Your task to perform on an android device: Search for amazon basics triple a on target.com, select the first entry, and add it to the cart. Image 0: 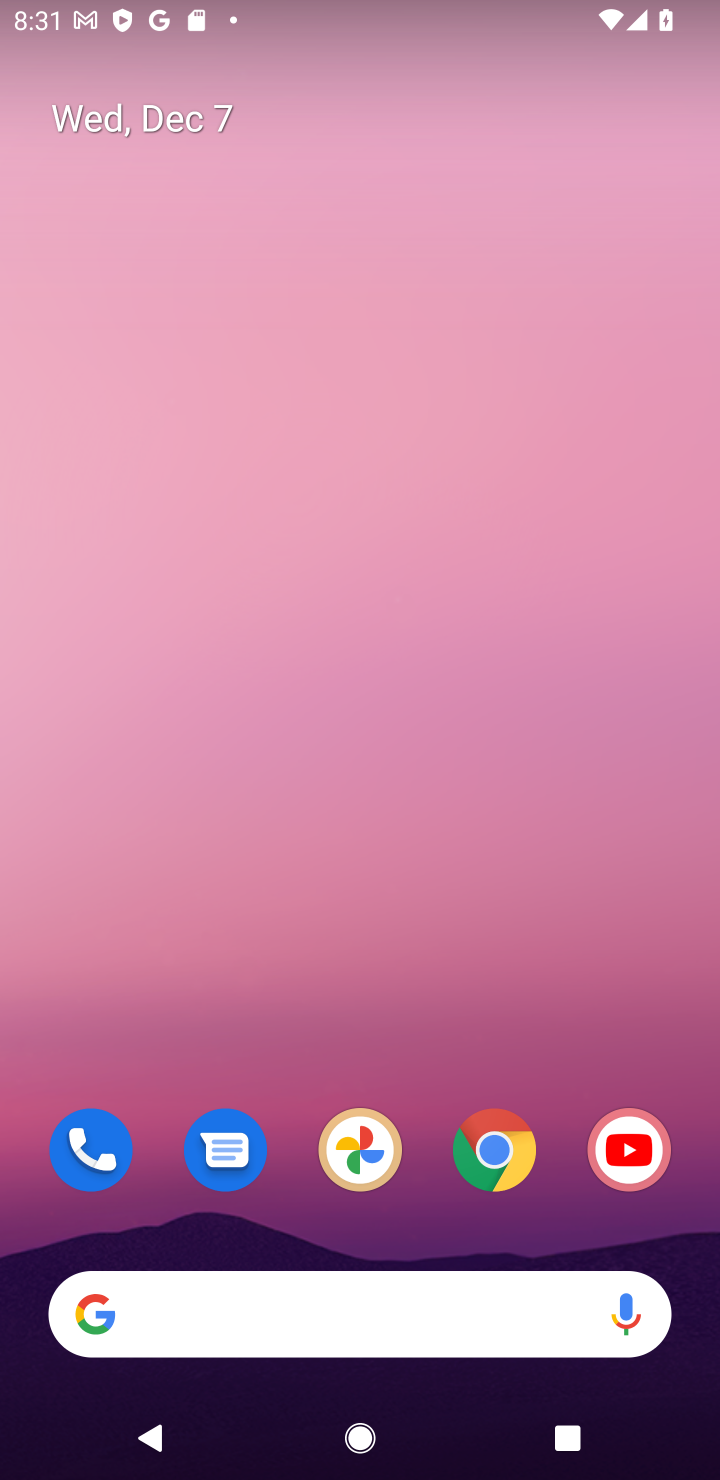
Step 0: click (489, 1151)
Your task to perform on an android device: Search for amazon basics triple a on target.com, select the first entry, and add it to the cart. Image 1: 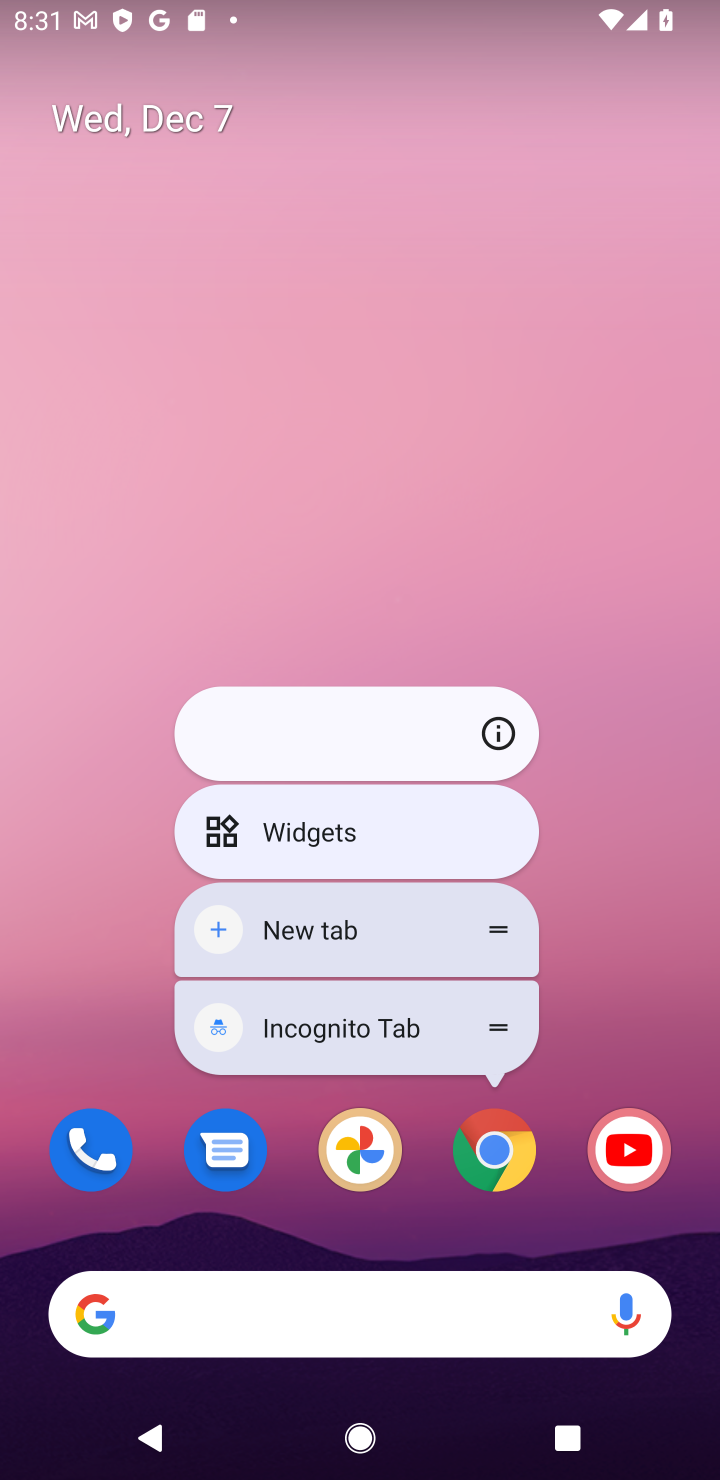
Step 1: click (490, 1152)
Your task to perform on an android device: Search for amazon basics triple a on target.com, select the first entry, and add it to the cart. Image 2: 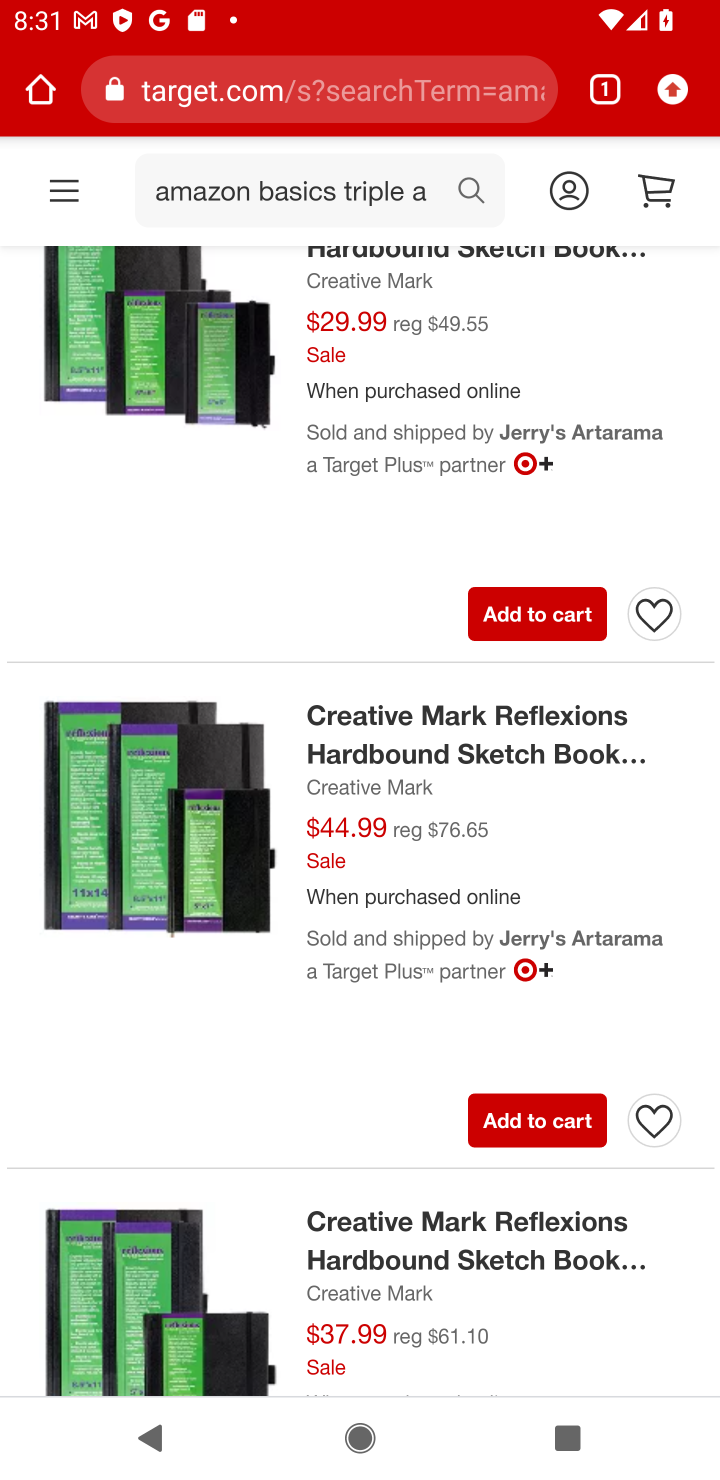
Step 2: task complete